Your task to perform on an android device: Search for Mexican restaurants on Maps Image 0: 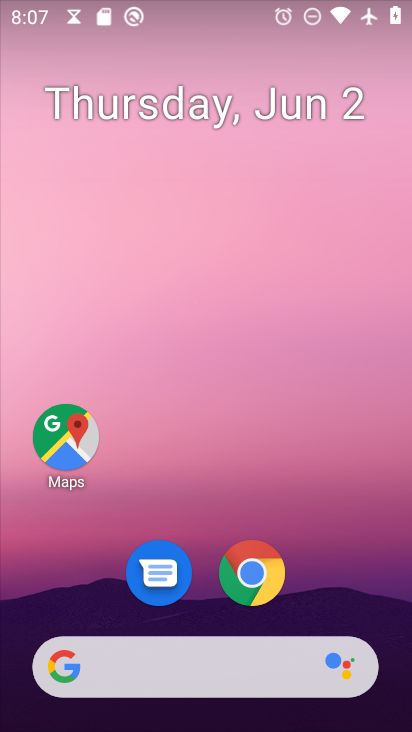
Step 0: press home button
Your task to perform on an android device: Search for Mexican restaurants on Maps Image 1: 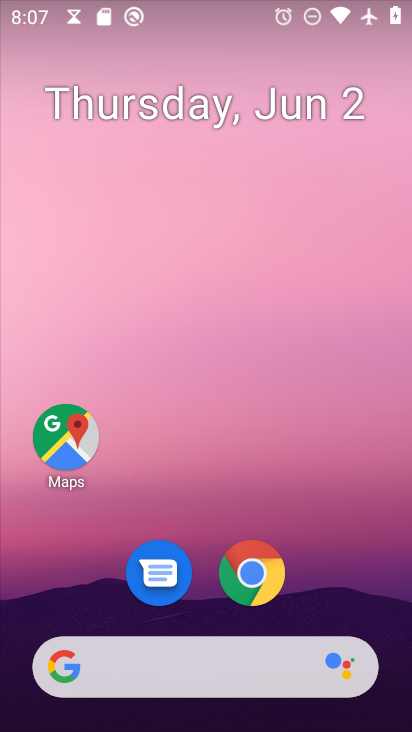
Step 1: click (70, 451)
Your task to perform on an android device: Search for Mexican restaurants on Maps Image 2: 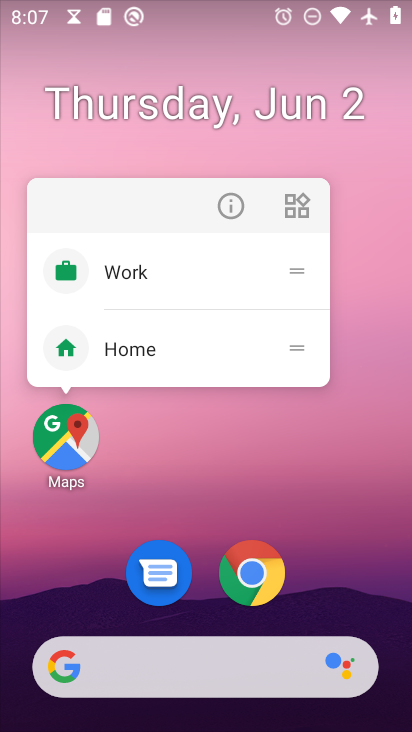
Step 2: click (64, 456)
Your task to perform on an android device: Search for Mexican restaurants on Maps Image 3: 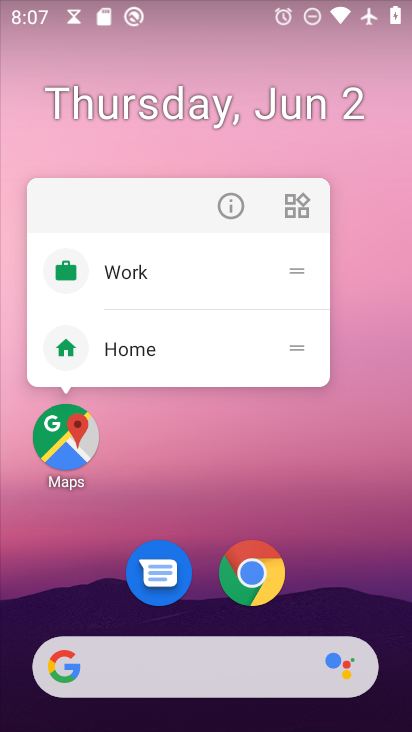
Step 3: click (67, 444)
Your task to perform on an android device: Search for Mexican restaurants on Maps Image 4: 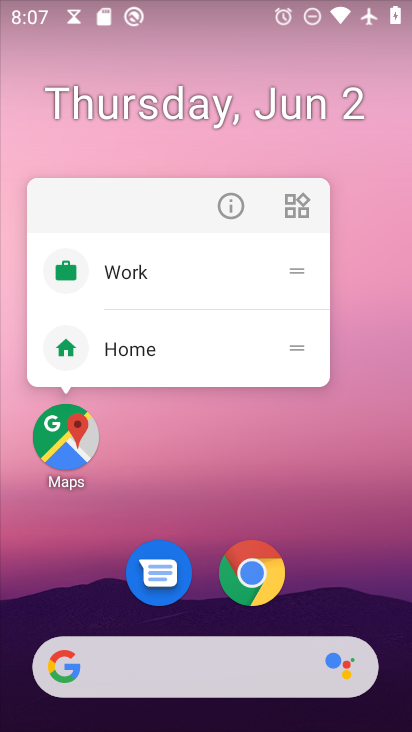
Step 4: click (67, 444)
Your task to perform on an android device: Search for Mexican restaurants on Maps Image 5: 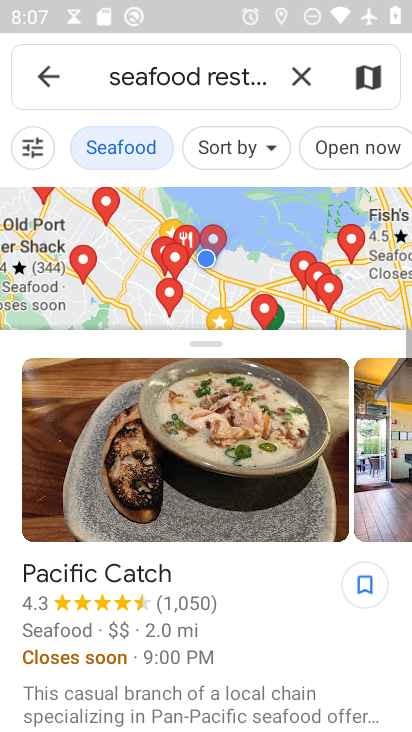
Step 5: click (299, 80)
Your task to perform on an android device: Search for Mexican restaurants on Maps Image 6: 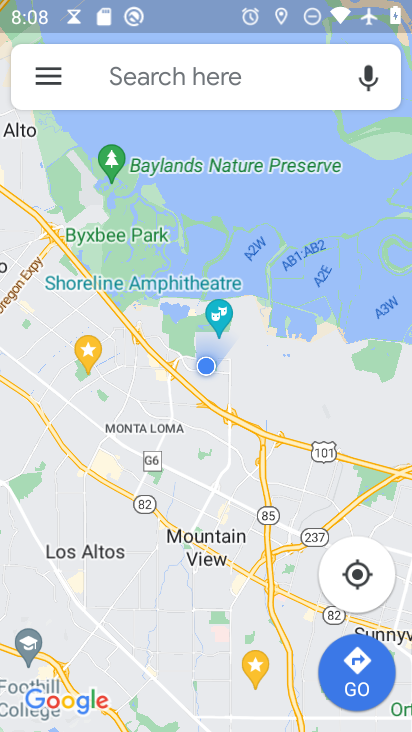
Step 6: click (166, 72)
Your task to perform on an android device: Search for Mexican restaurants on Maps Image 7: 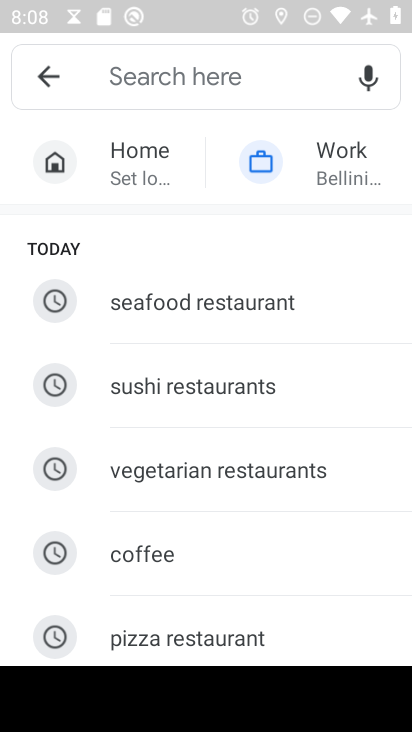
Step 7: drag from (244, 579) to (312, 323)
Your task to perform on an android device: Search for Mexican restaurants on Maps Image 8: 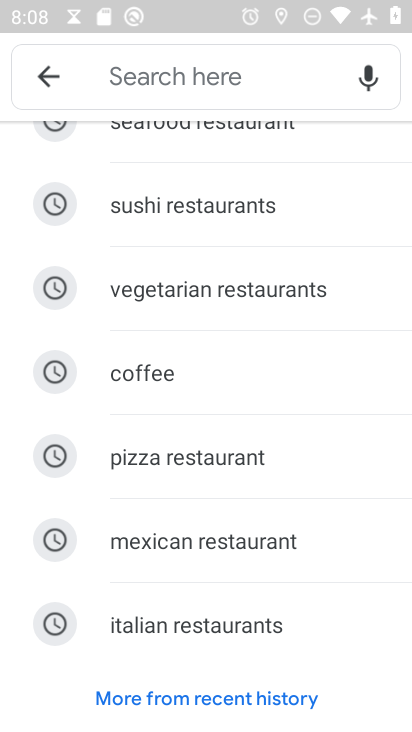
Step 8: click (194, 541)
Your task to perform on an android device: Search for Mexican restaurants on Maps Image 9: 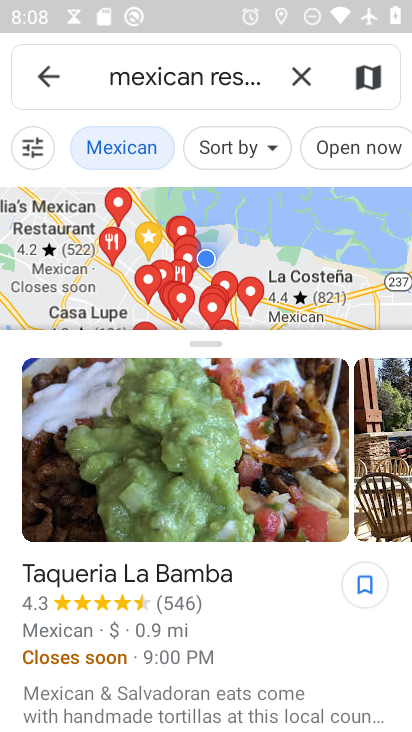
Step 9: task complete